Your task to perform on an android device: toggle sleep mode Image 0: 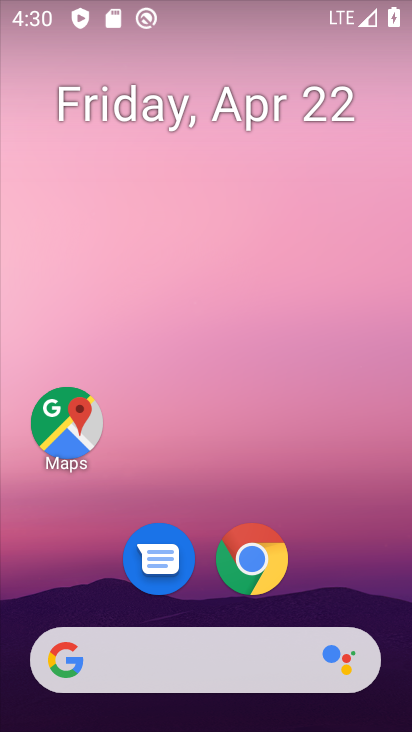
Step 0: drag from (315, 504) to (214, 24)
Your task to perform on an android device: toggle sleep mode Image 1: 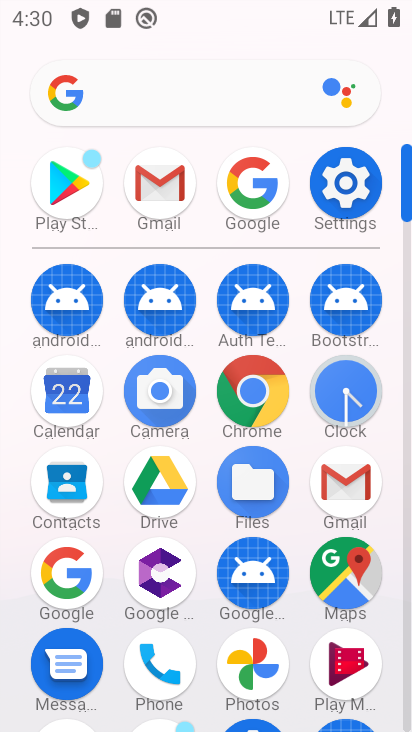
Step 1: click (336, 194)
Your task to perform on an android device: toggle sleep mode Image 2: 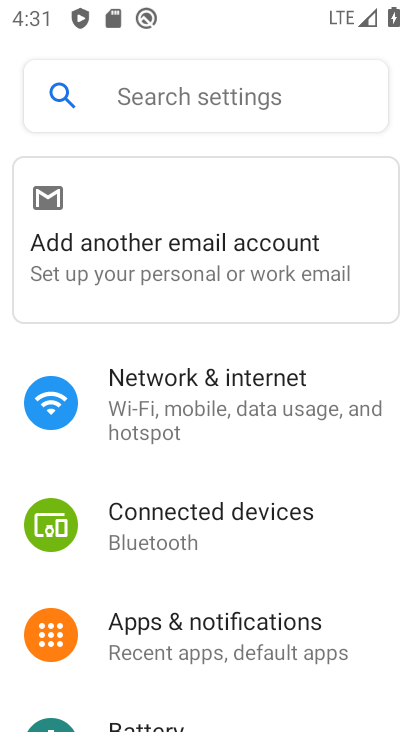
Step 2: drag from (211, 675) to (179, 168)
Your task to perform on an android device: toggle sleep mode Image 3: 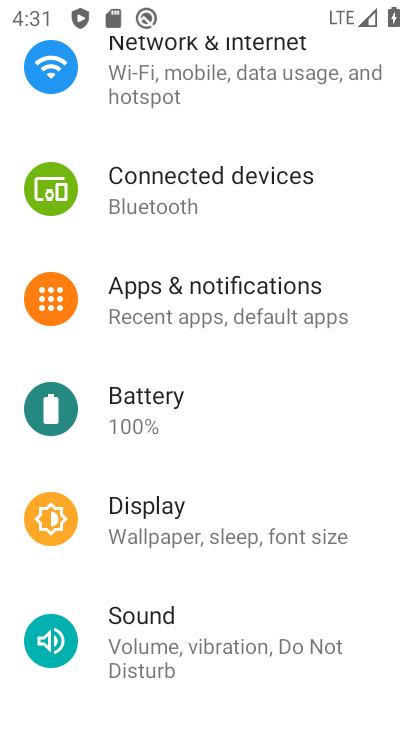
Step 3: click (180, 504)
Your task to perform on an android device: toggle sleep mode Image 4: 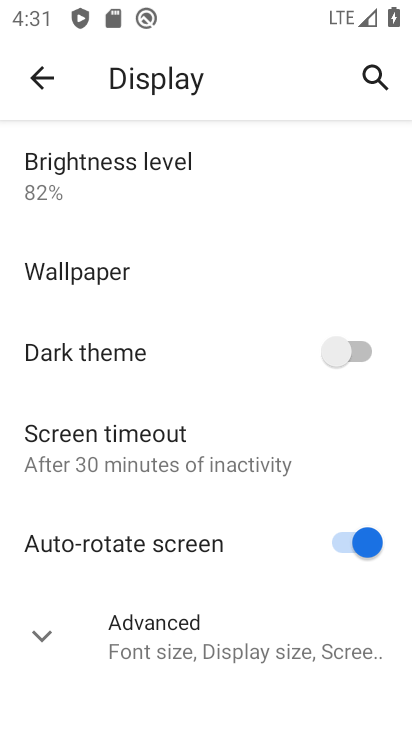
Step 4: task complete